Your task to perform on an android device: Open Google Chrome Image 0: 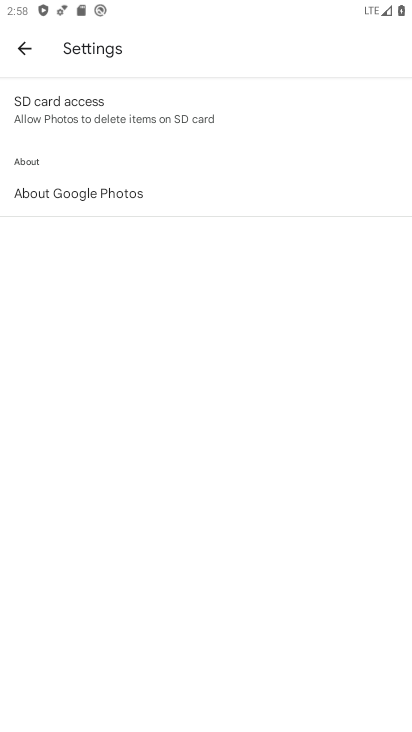
Step 0: press home button
Your task to perform on an android device: Open Google Chrome Image 1: 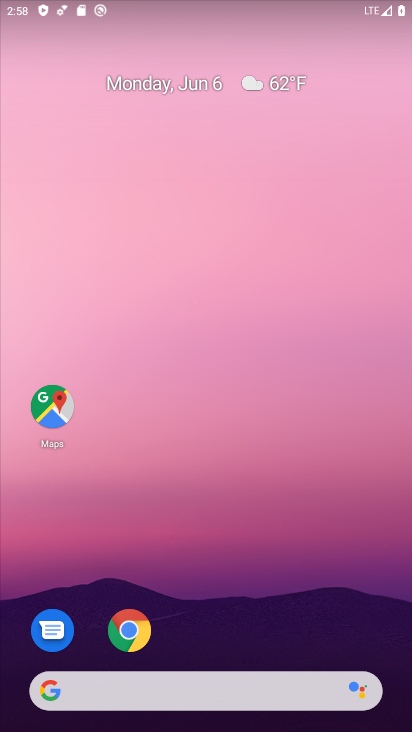
Step 1: click (120, 648)
Your task to perform on an android device: Open Google Chrome Image 2: 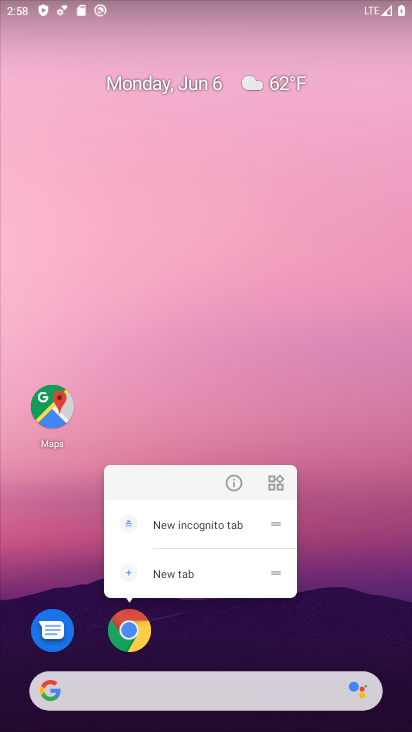
Step 2: click (139, 620)
Your task to perform on an android device: Open Google Chrome Image 3: 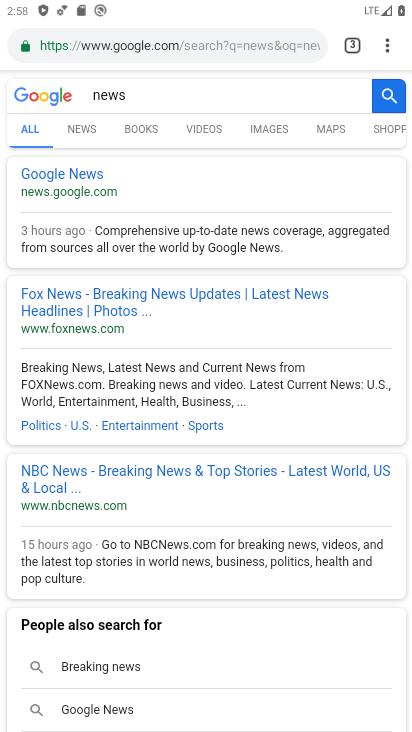
Step 3: task complete